Your task to perform on an android device: Show me the alarms in the clock app Image 0: 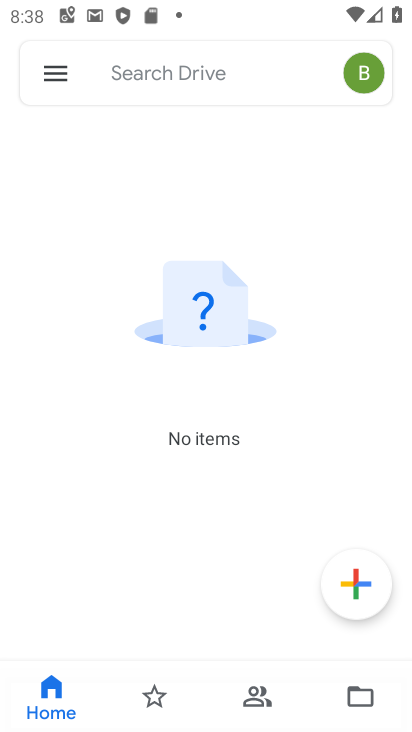
Step 0: press home button
Your task to perform on an android device: Show me the alarms in the clock app Image 1: 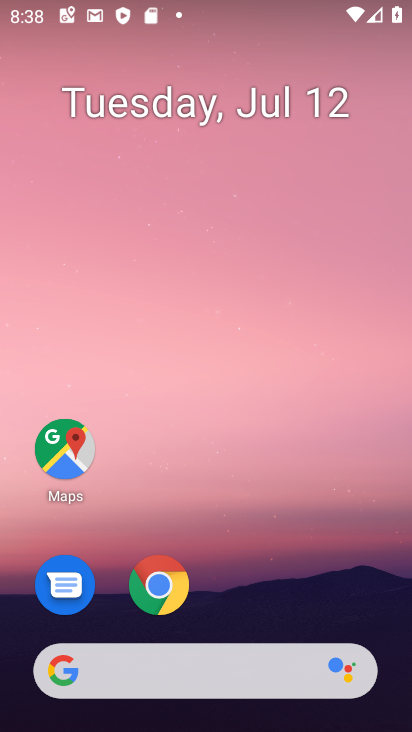
Step 1: drag from (287, 576) to (312, 49)
Your task to perform on an android device: Show me the alarms in the clock app Image 2: 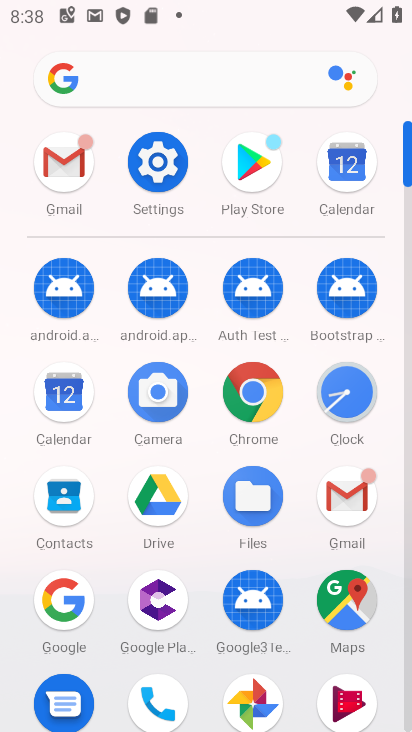
Step 2: click (346, 395)
Your task to perform on an android device: Show me the alarms in the clock app Image 3: 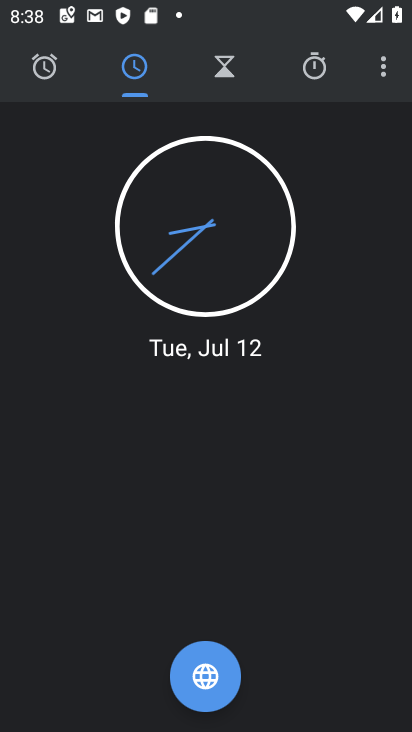
Step 3: click (47, 77)
Your task to perform on an android device: Show me the alarms in the clock app Image 4: 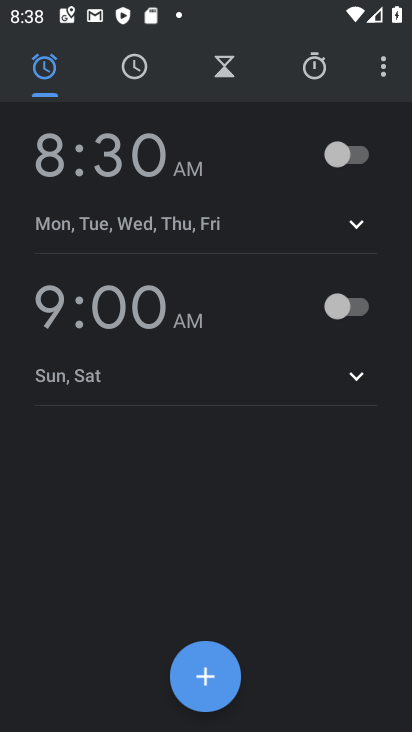
Step 4: task complete